Your task to perform on an android device: Go to calendar. Show me events next week Image 0: 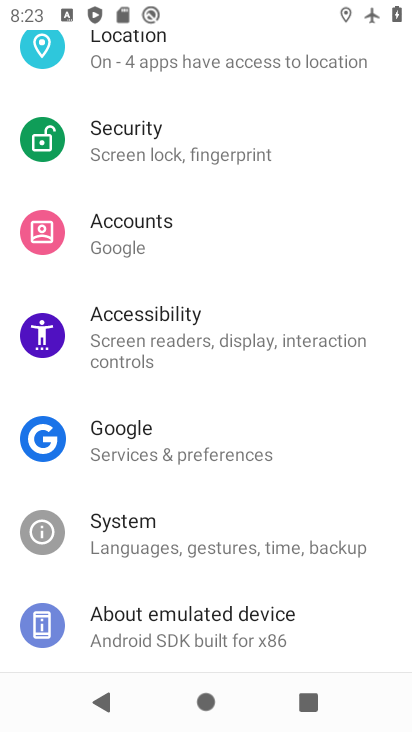
Step 0: press home button
Your task to perform on an android device: Go to calendar. Show me events next week Image 1: 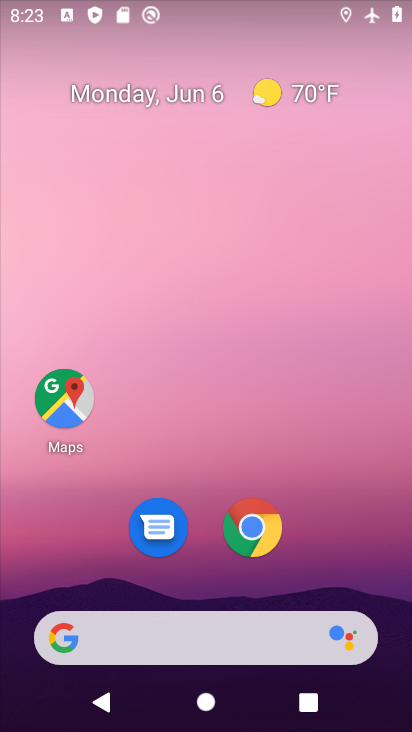
Step 1: drag from (212, 535) to (219, 236)
Your task to perform on an android device: Go to calendar. Show me events next week Image 2: 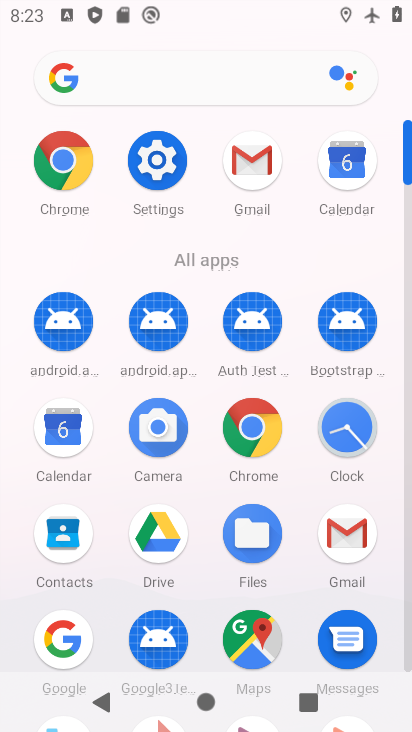
Step 2: click (66, 448)
Your task to perform on an android device: Go to calendar. Show me events next week Image 3: 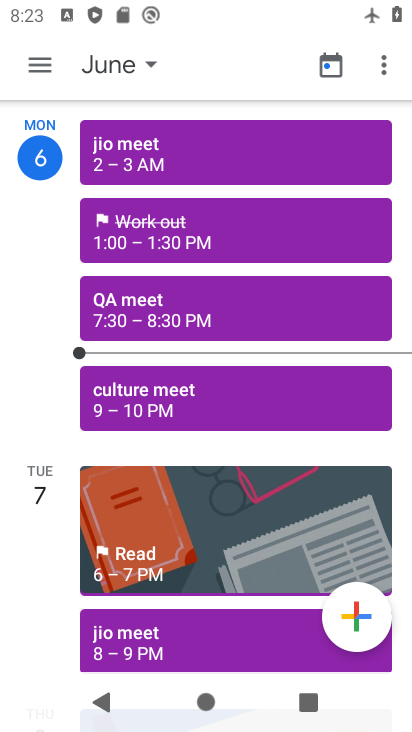
Step 3: click (112, 74)
Your task to perform on an android device: Go to calendar. Show me events next week Image 4: 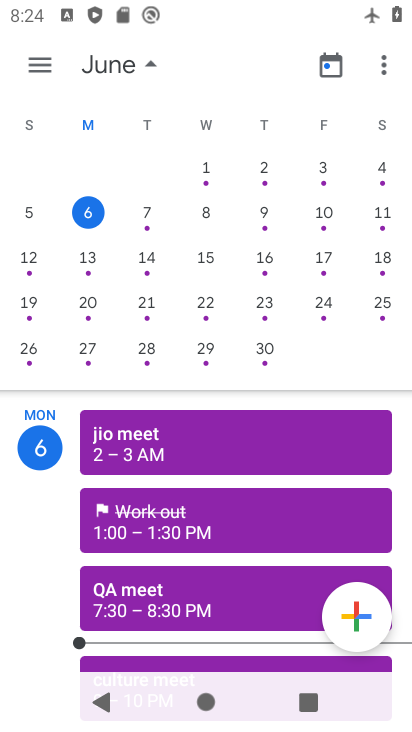
Step 4: click (45, 256)
Your task to perform on an android device: Go to calendar. Show me events next week Image 5: 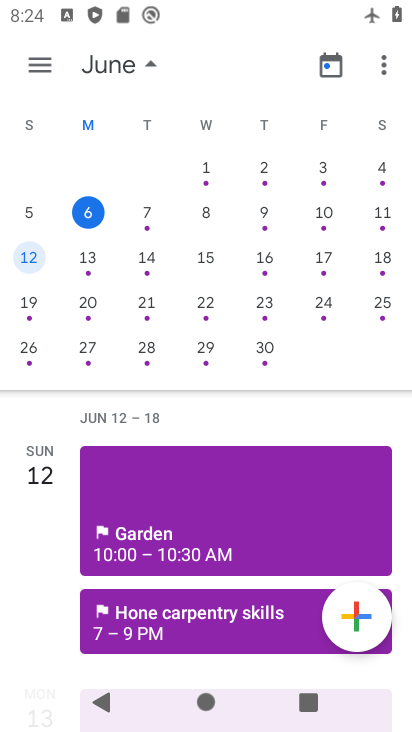
Step 5: task complete